Your task to perform on an android device: Do I have any events tomorrow? Image 0: 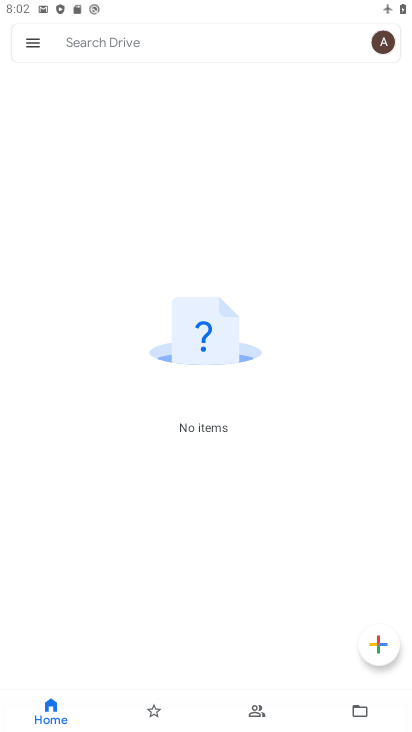
Step 0: press home button
Your task to perform on an android device: Do I have any events tomorrow? Image 1: 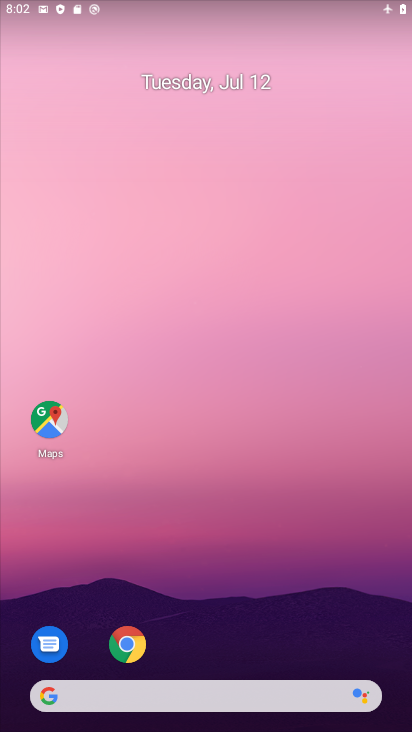
Step 1: drag from (204, 649) to (179, 230)
Your task to perform on an android device: Do I have any events tomorrow? Image 2: 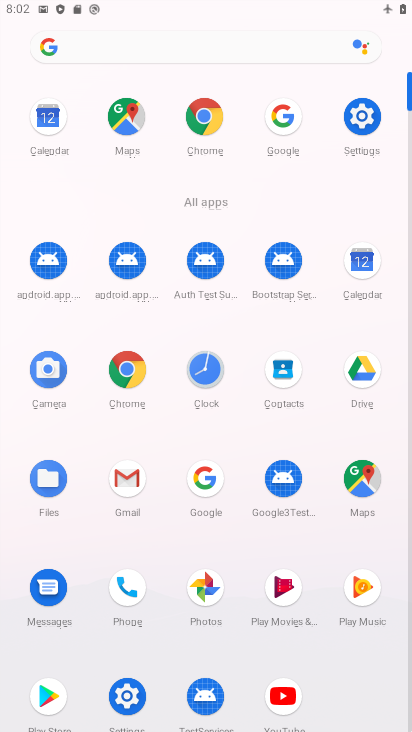
Step 2: click (345, 254)
Your task to perform on an android device: Do I have any events tomorrow? Image 3: 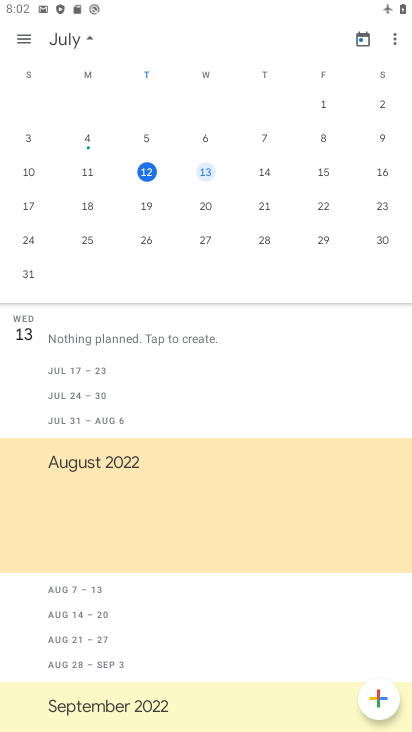
Step 3: click (205, 175)
Your task to perform on an android device: Do I have any events tomorrow? Image 4: 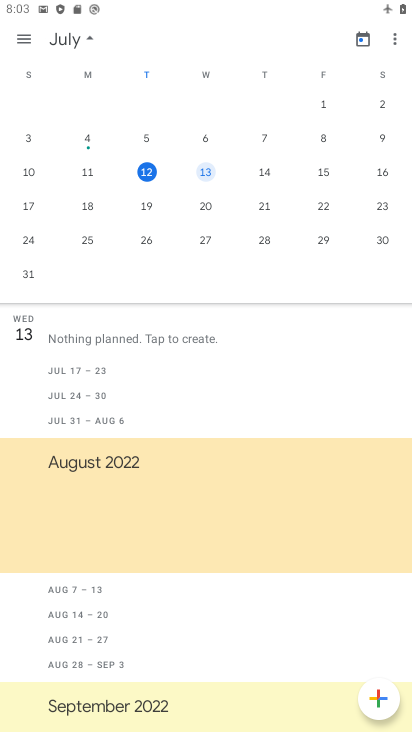
Step 4: task complete